Your task to perform on an android device: What's the weather? Image 0: 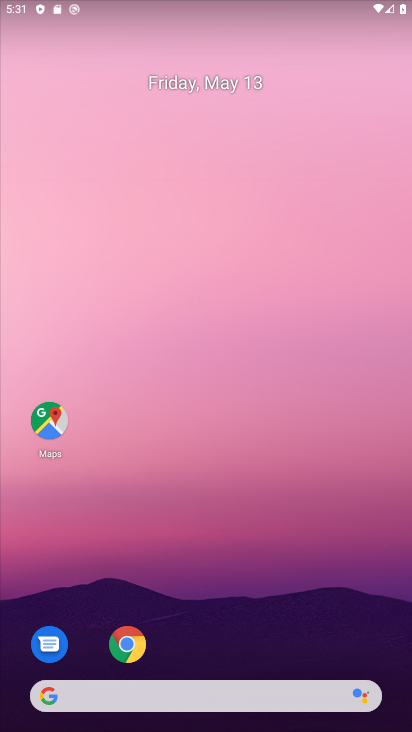
Step 0: drag from (206, 638) to (275, 27)
Your task to perform on an android device: What's the weather? Image 1: 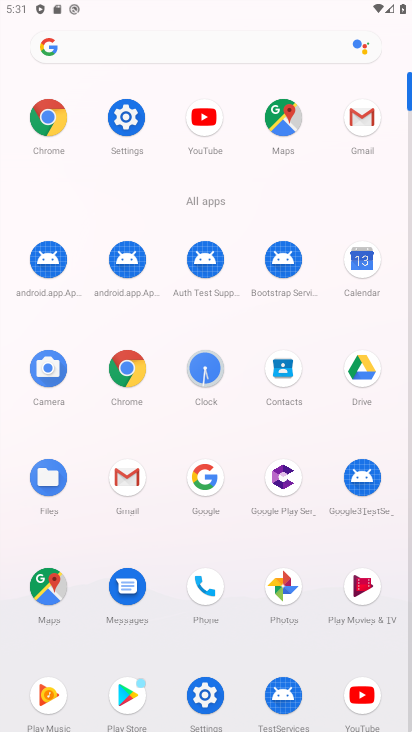
Step 1: click (174, 34)
Your task to perform on an android device: What's the weather? Image 2: 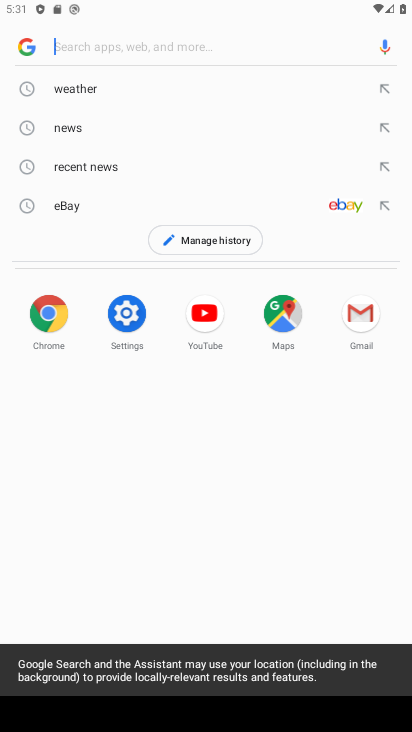
Step 2: click (80, 84)
Your task to perform on an android device: What's the weather? Image 3: 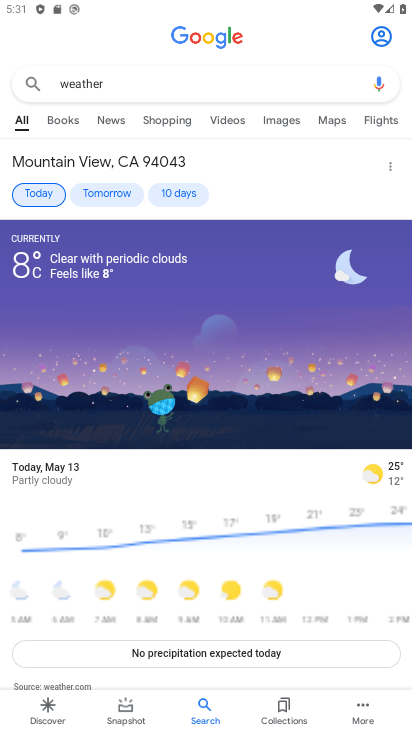
Step 3: task complete